Your task to perform on an android device: What's on Reddit this week Image 0: 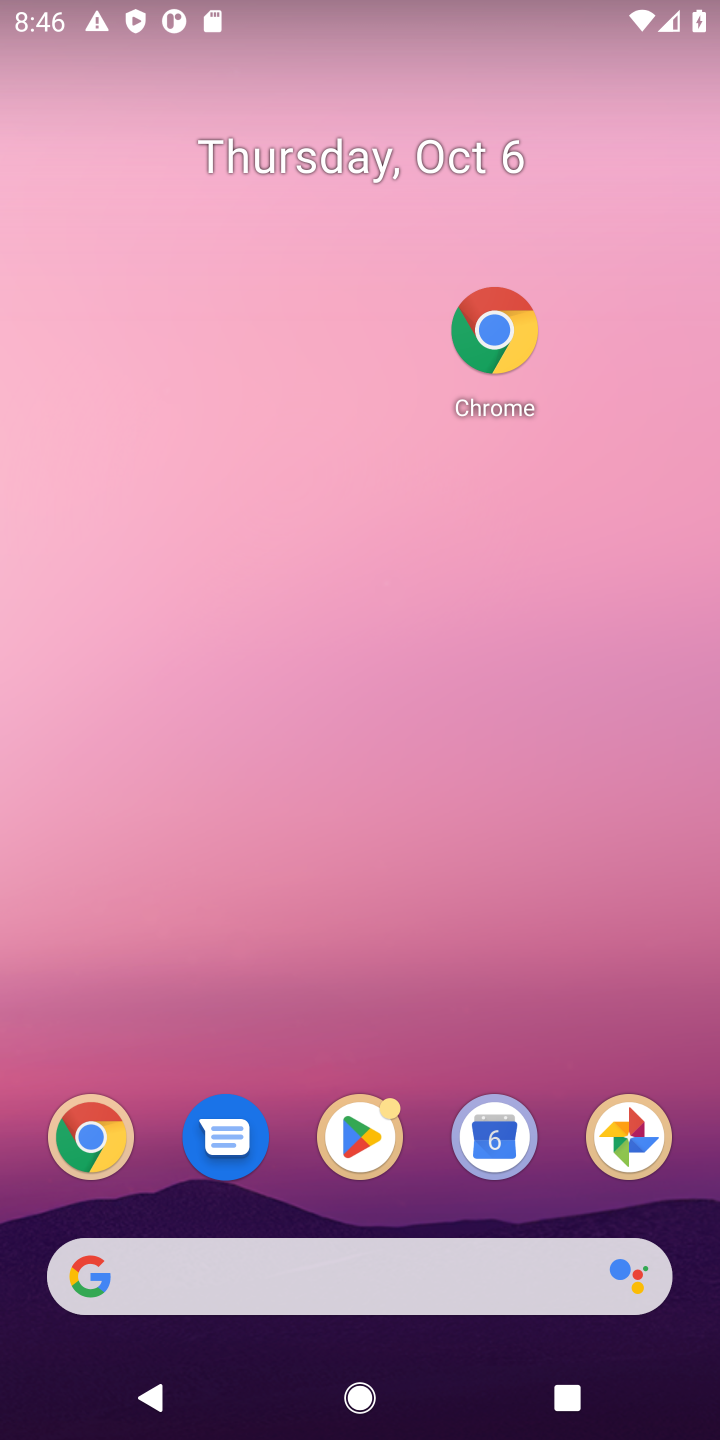
Step 0: click (99, 1158)
Your task to perform on an android device: What's on Reddit this week Image 1: 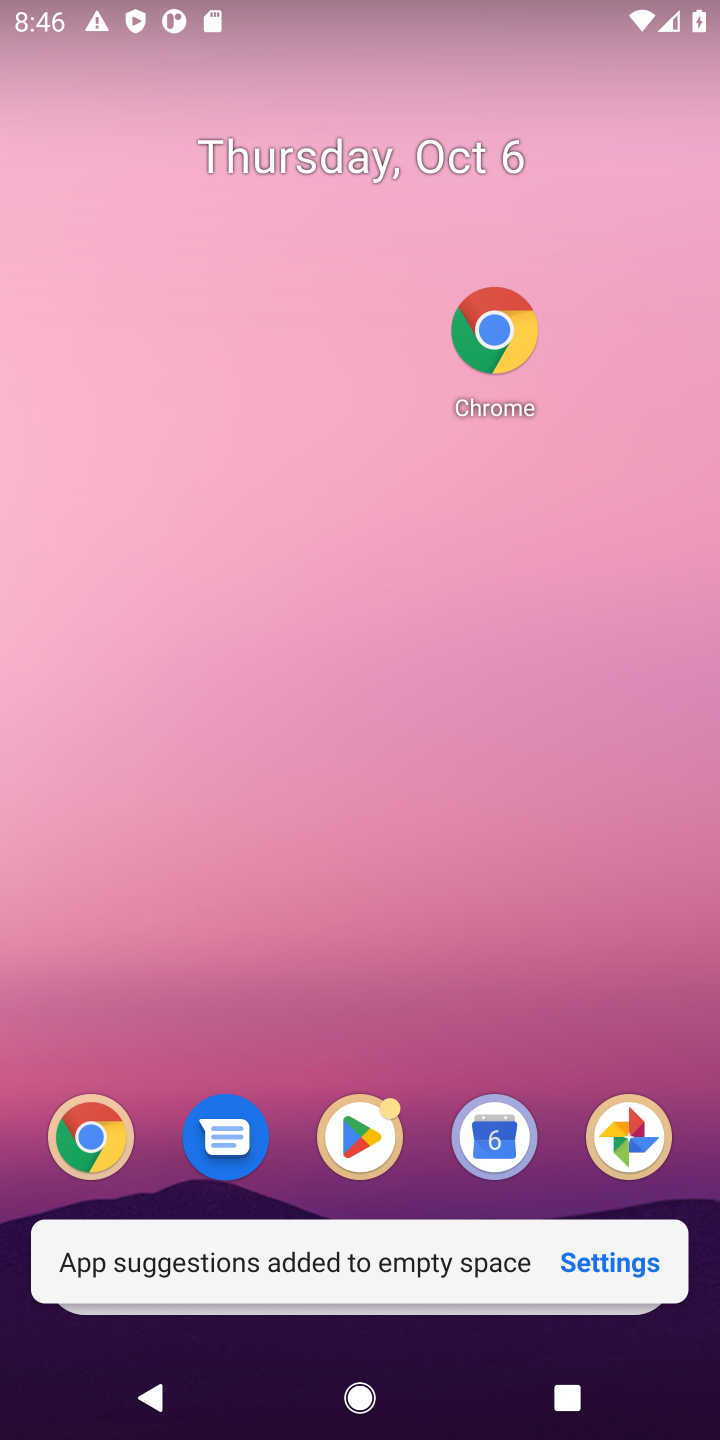
Step 1: click (95, 1126)
Your task to perform on an android device: What's on Reddit this week Image 2: 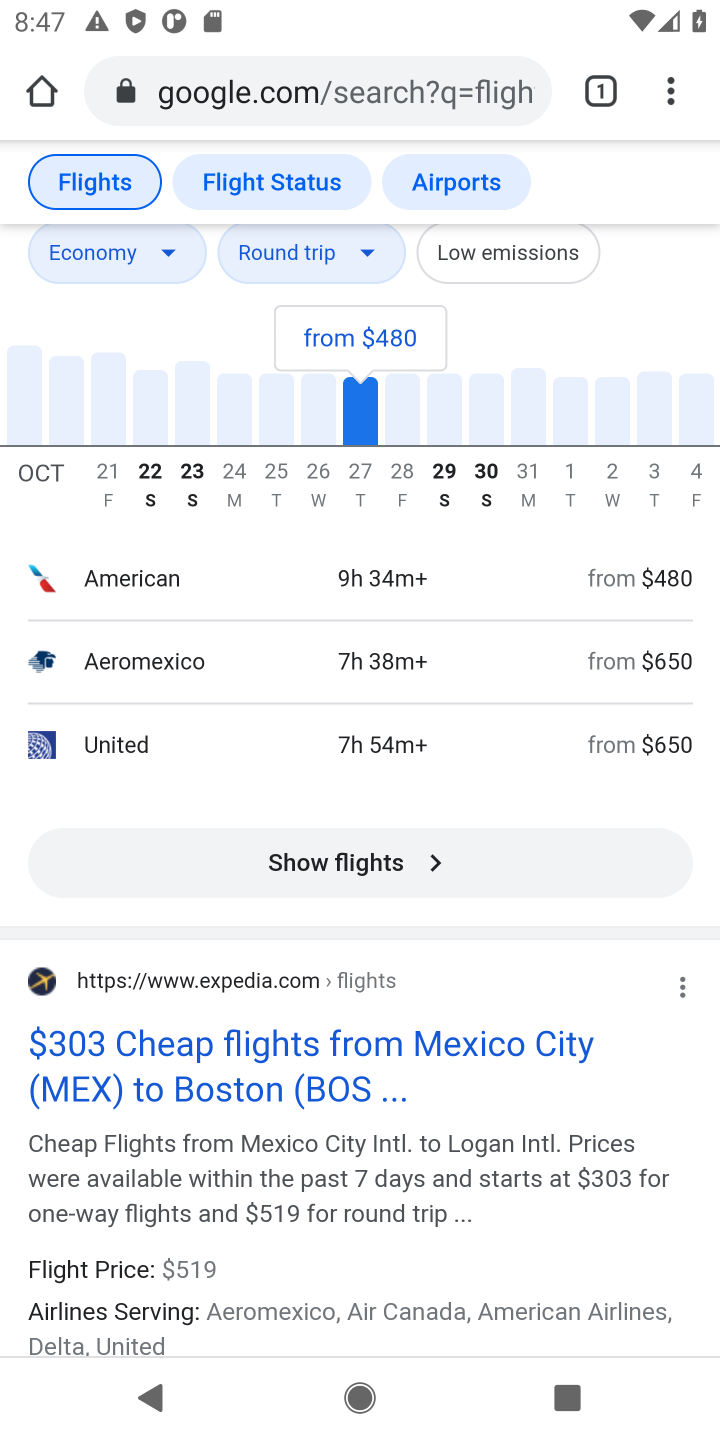
Step 2: click (500, 99)
Your task to perform on an android device: What's on Reddit this week Image 3: 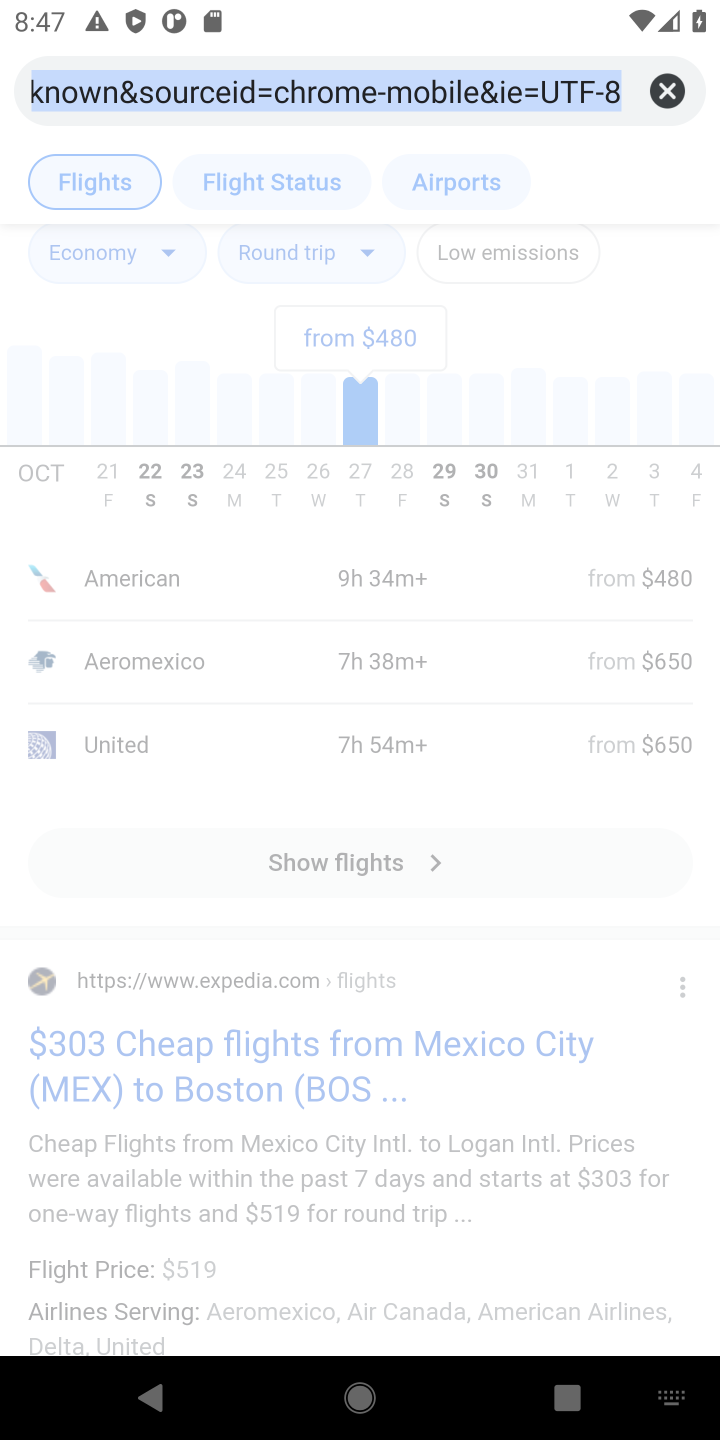
Step 3: click (664, 100)
Your task to perform on an android device: What's on Reddit this week Image 4: 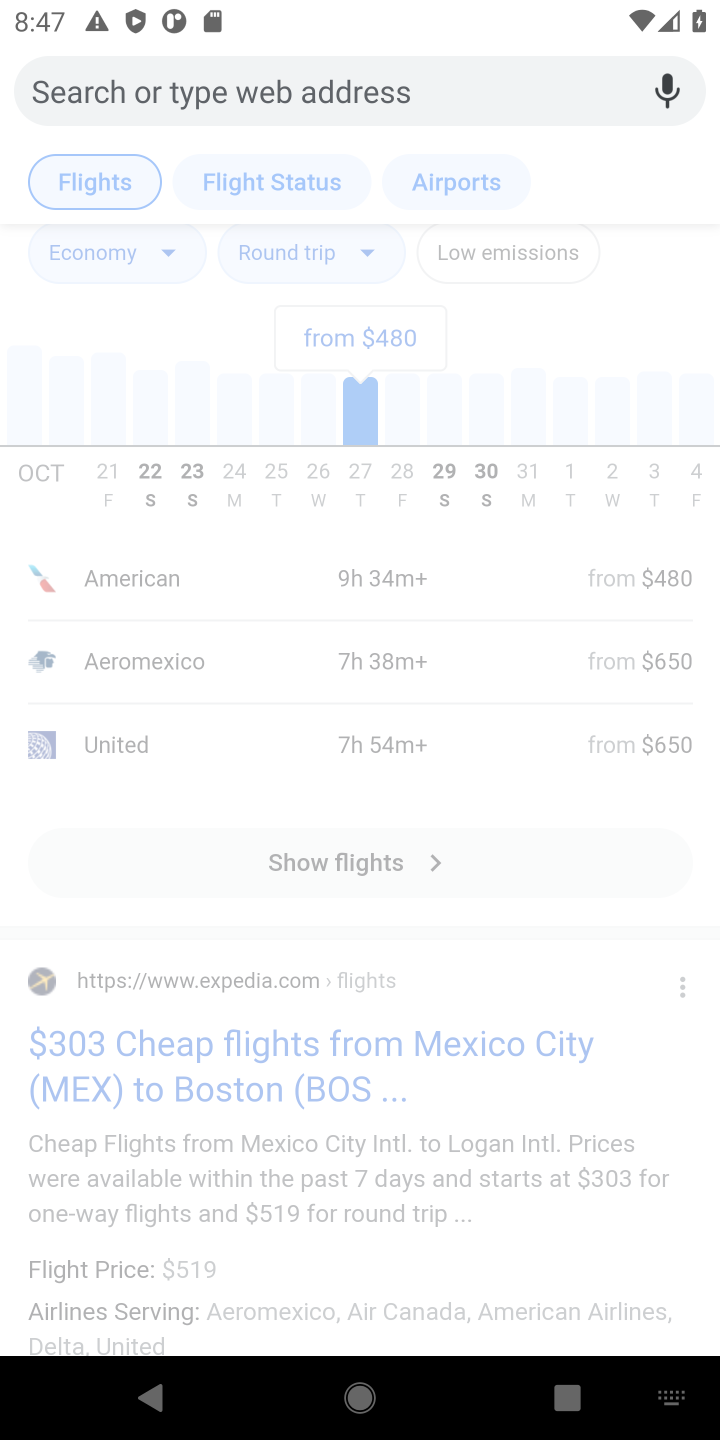
Step 4: type "Reddit this week"
Your task to perform on an android device: What's on Reddit this week Image 5: 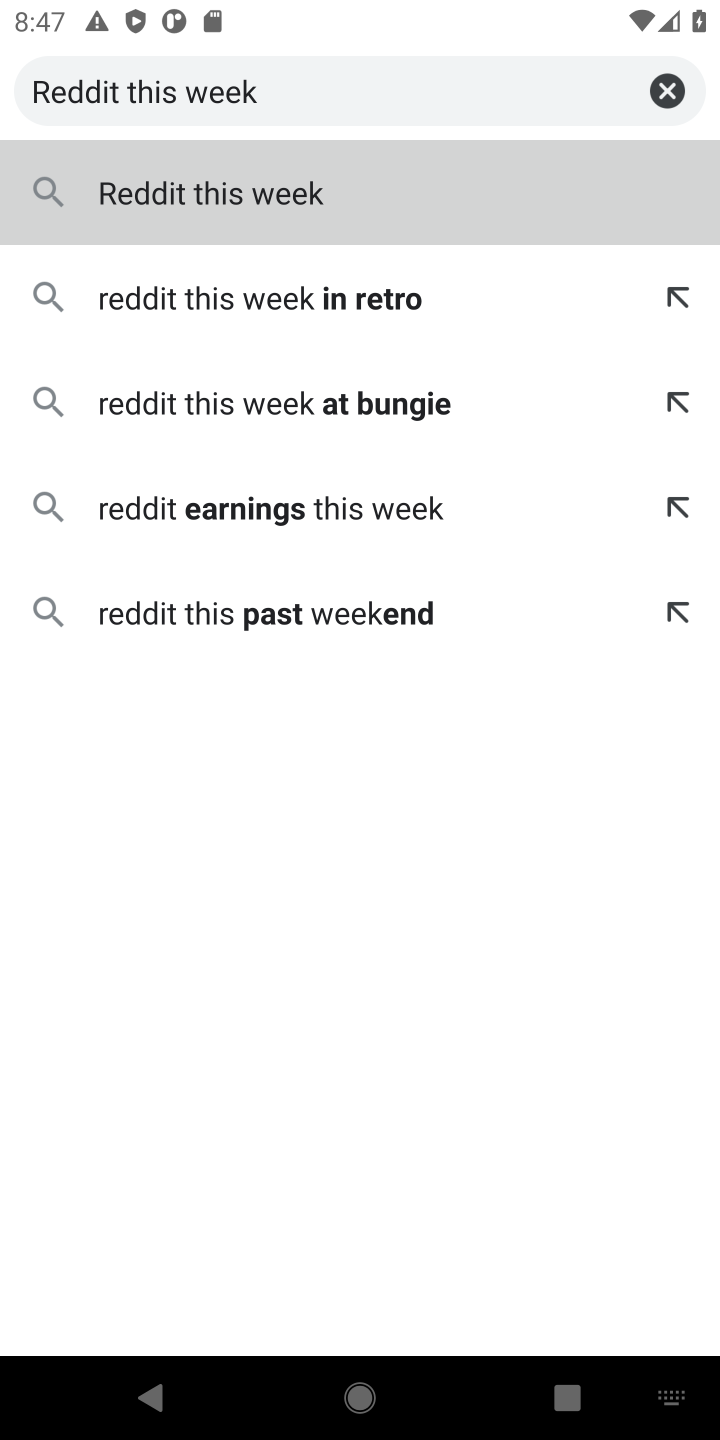
Step 5: click (167, 205)
Your task to perform on an android device: What's on Reddit this week Image 6: 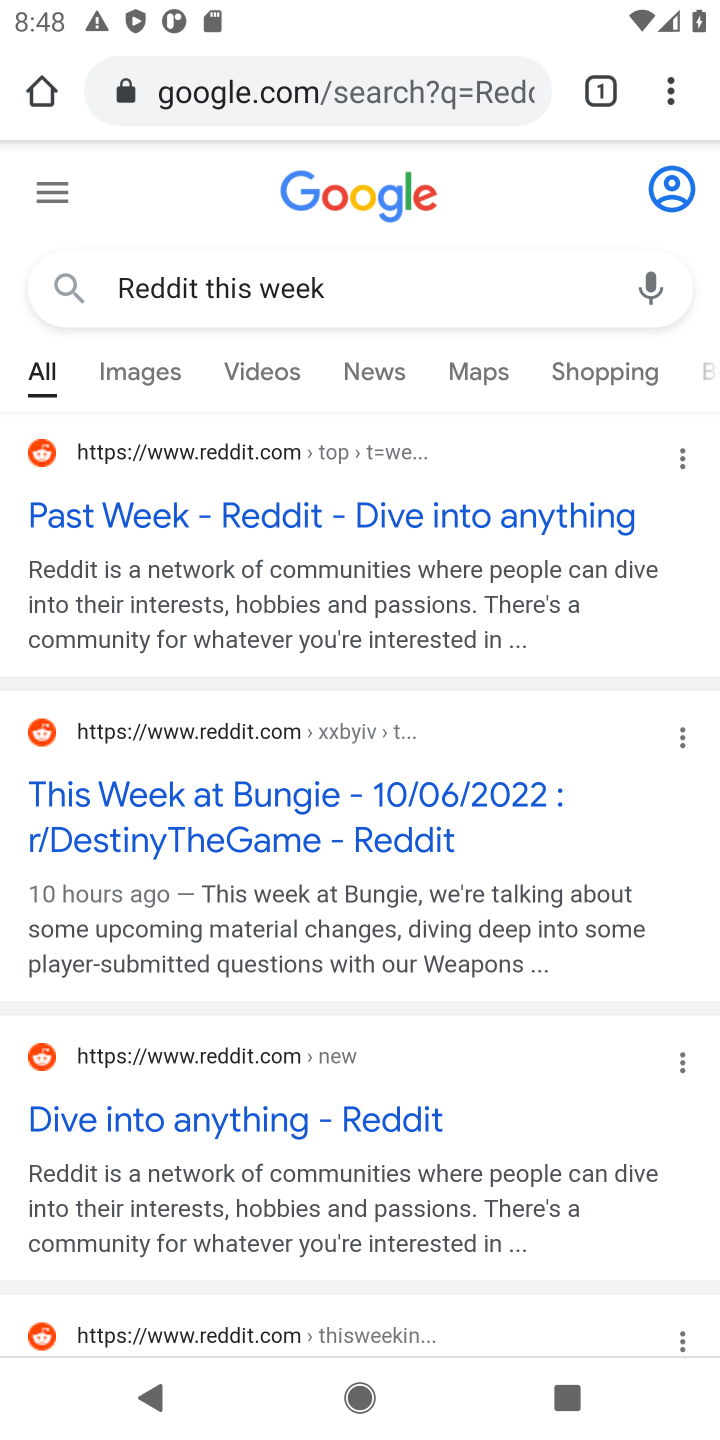
Step 6: click (133, 808)
Your task to perform on an android device: What's on Reddit this week Image 7: 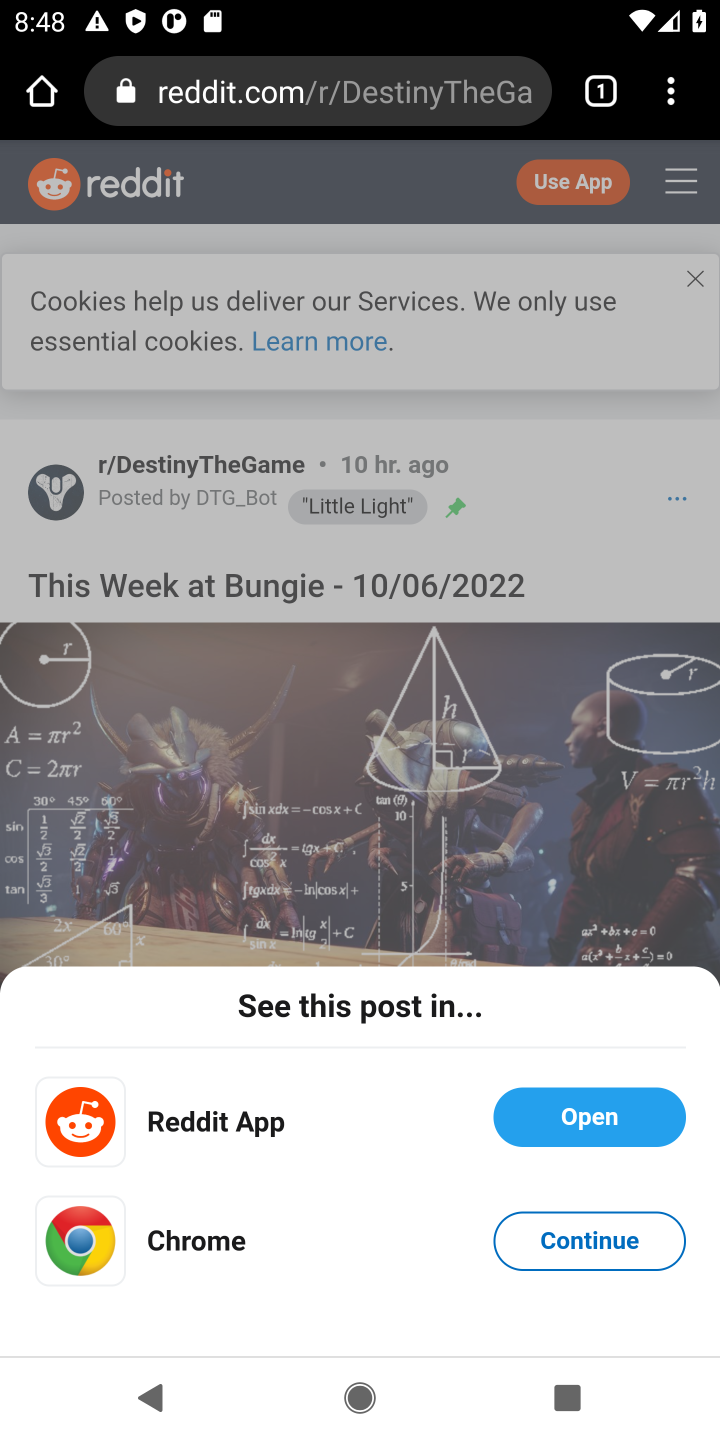
Step 7: click (587, 1108)
Your task to perform on an android device: What's on Reddit this week Image 8: 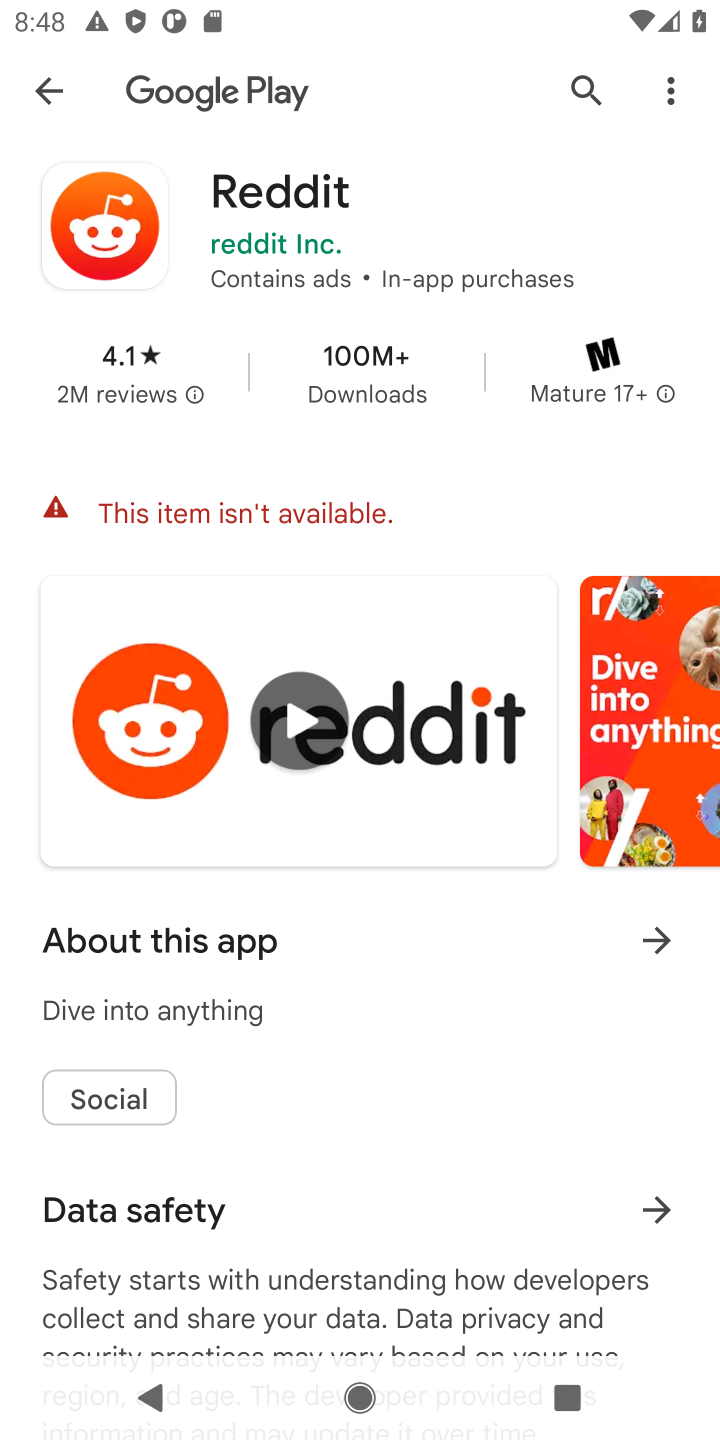
Step 8: task complete